Your task to perform on an android device: refresh tabs in the chrome app Image 0: 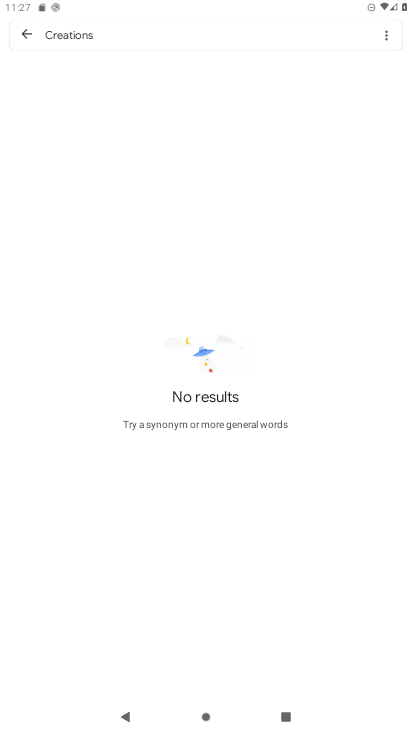
Step 0: press home button
Your task to perform on an android device: refresh tabs in the chrome app Image 1: 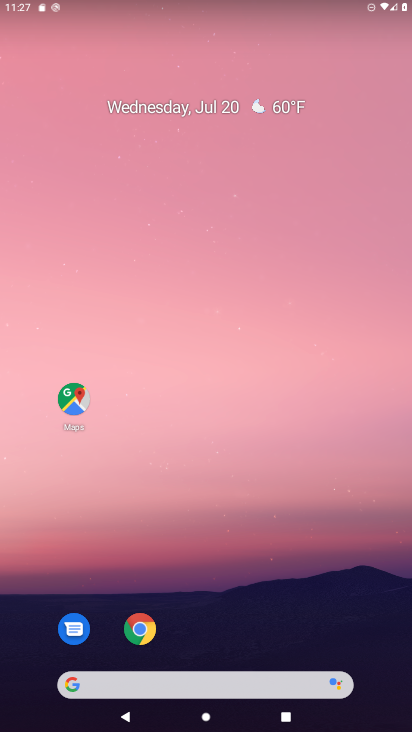
Step 1: click (148, 629)
Your task to perform on an android device: refresh tabs in the chrome app Image 2: 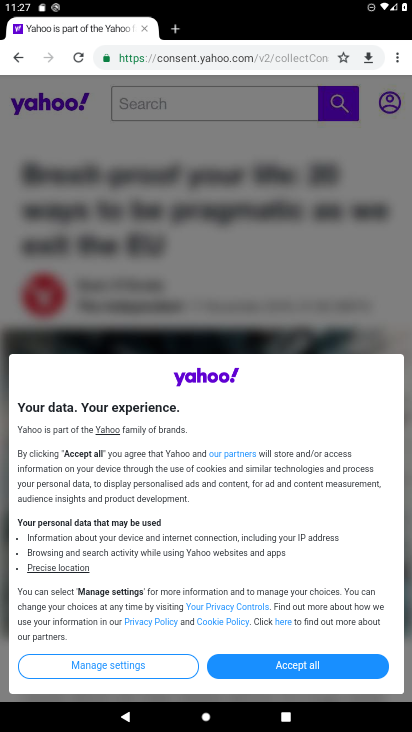
Step 2: click (291, 663)
Your task to perform on an android device: refresh tabs in the chrome app Image 3: 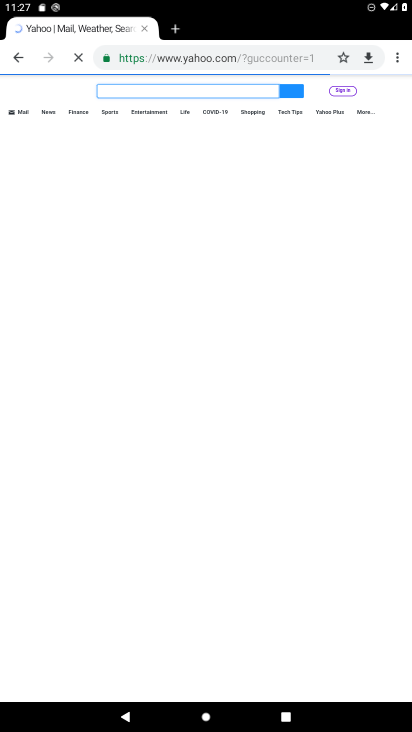
Step 3: click (74, 61)
Your task to perform on an android device: refresh tabs in the chrome app Image 4: 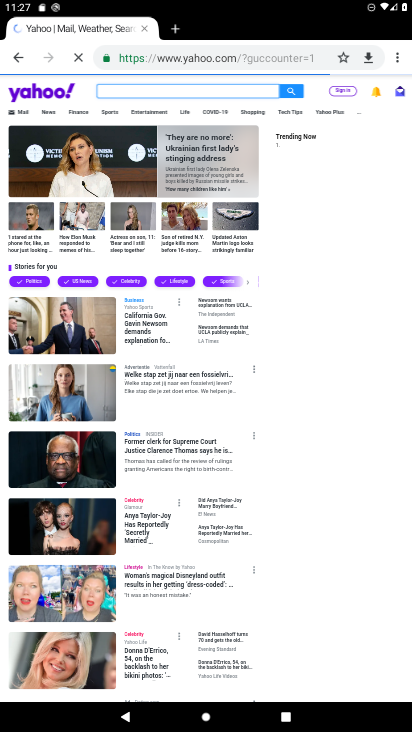
Step 4: click (74, 61)
Your task to perform on an android device: refresh tabs in the chrome app Image 5: 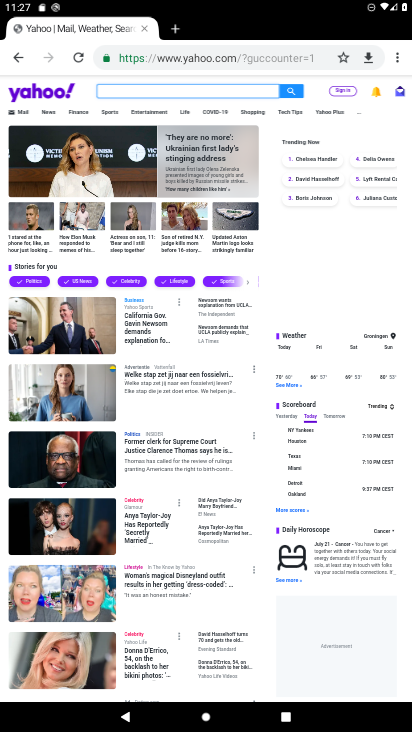
Step 5: click (75, 58)
Your task to perform on an android device: refresh tabs in the chrome app Image 6: 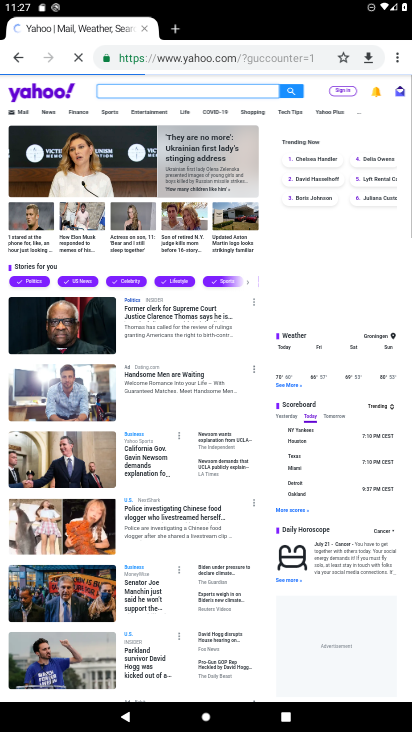
Step 6: task complete